Your task to perform on an android device: find which apps use the phone's location Image 0: 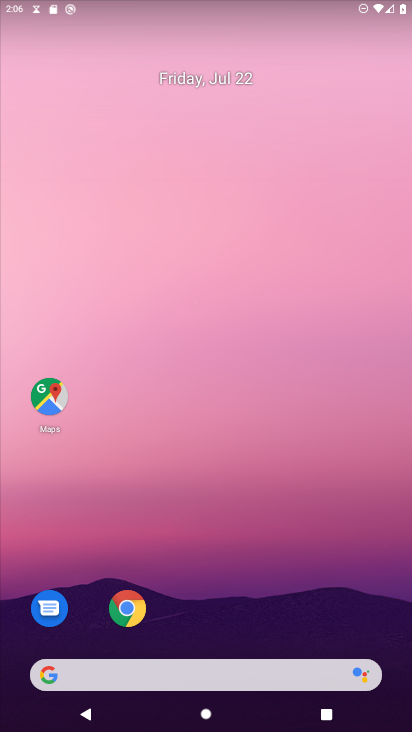
Step 0: drag from (251, 443) to (243, 171)
Your task to perform on an android device: find which apps use the phone's location Image 1: 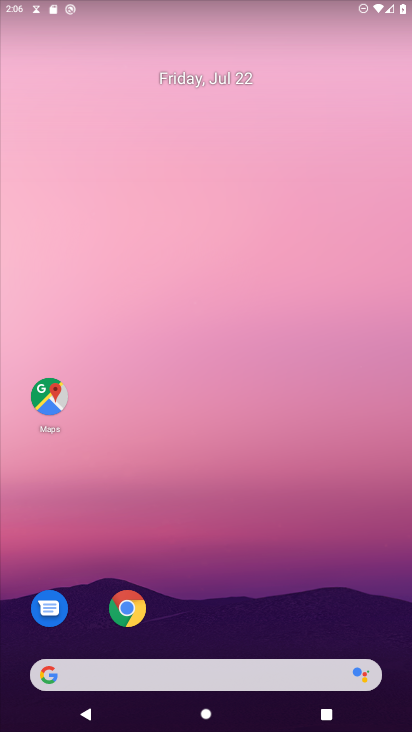
Step 1: drag from (246, 519) to (224, 5)
Your task to perform on an android device: find which apps use the phone's location Image 2: 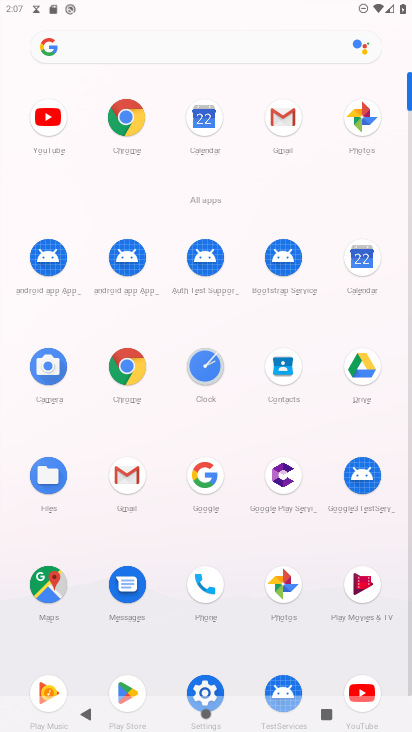
Step 2: click (200, 681)
Your task to perform on an android device: find which apps use the phone's location Image 3: 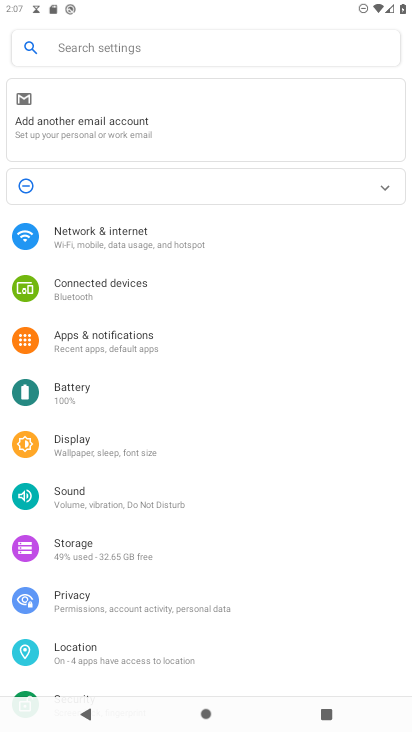
Step 3: click (56, 648)
Your task to perform on an android device: find which apps use the phone's location Image 4: 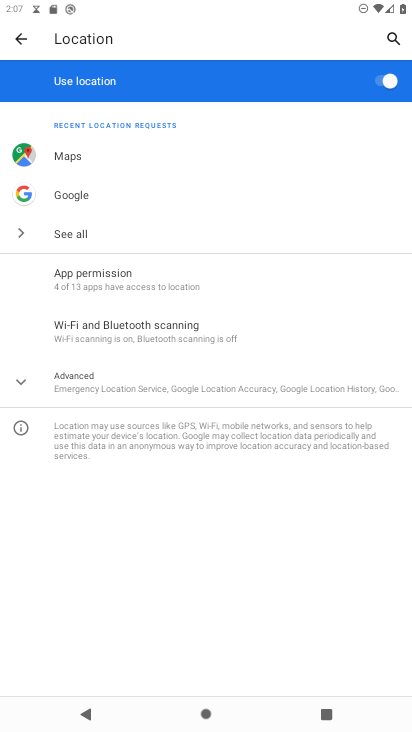
Step 4: click (78, 273)
Your task to perform on an android device: find which apps use the phone's location Image 5: 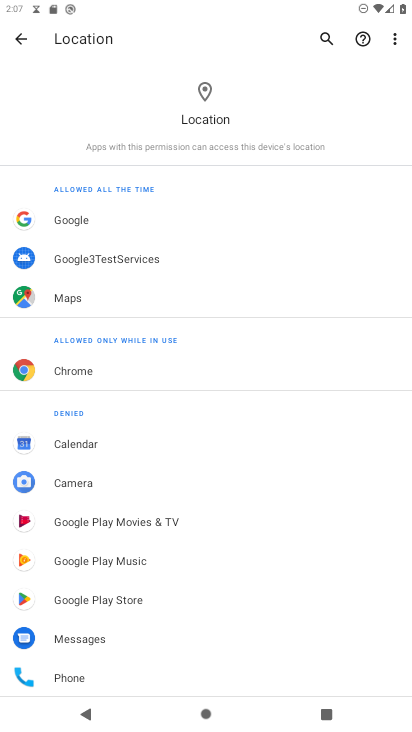
Step 5: task complete